Your task to perform on an android device: What's the weather going to be tomorrow? Image 0: 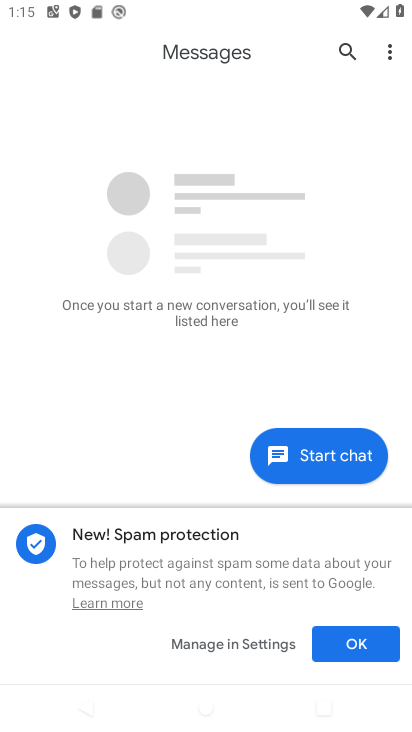
Step 0: press home button
Your task to perform on an android device: What's the weather going to be tomorrow? Image 1: 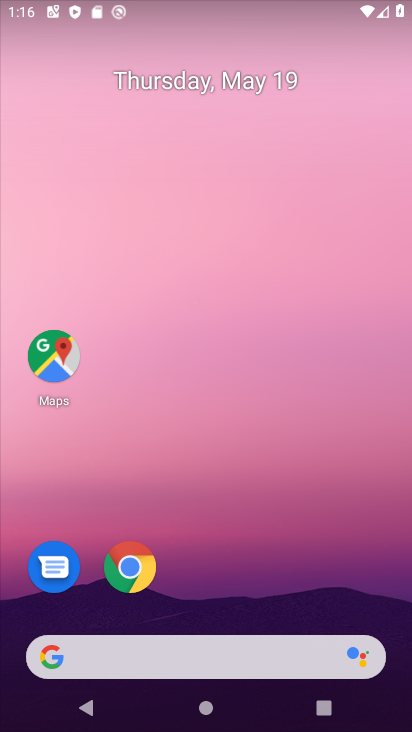
Step 1: click (139, 658)
Your task to perform on an android device: What's the weather going to be tomorrow? Image 2: 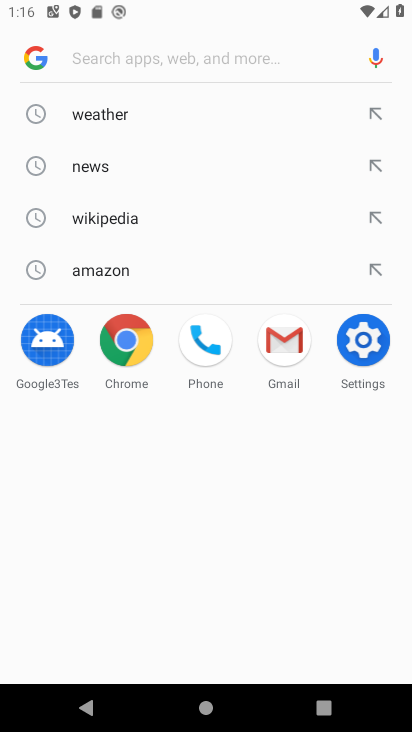
Step 2: click (101, 122)
Your task to perform on an android device: What's the weather going to be tomorrow? Image 3: 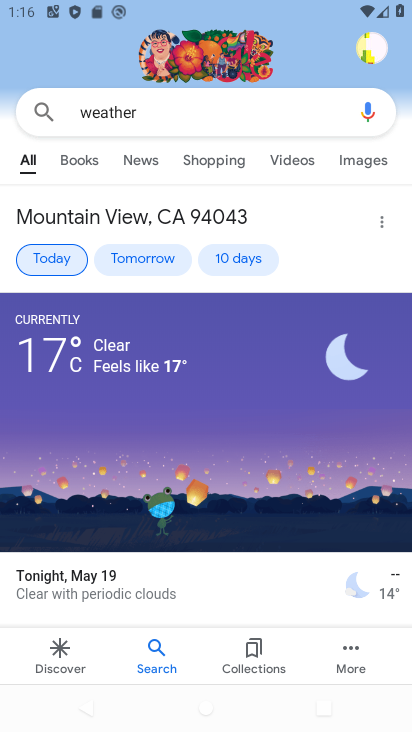
Step 3: click (116, 254)
Your task to perform on an android device: What's the weather going to be tomorrow? Image 4: 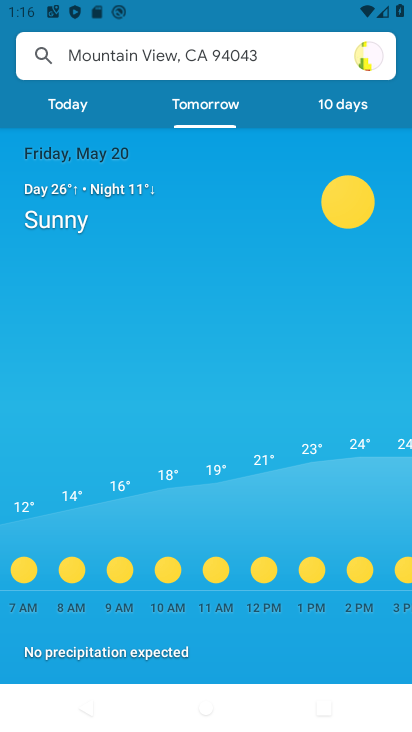
Step 4: task complete